Your task to perform on an android device: Is it going to rain this weekend? Image 0: 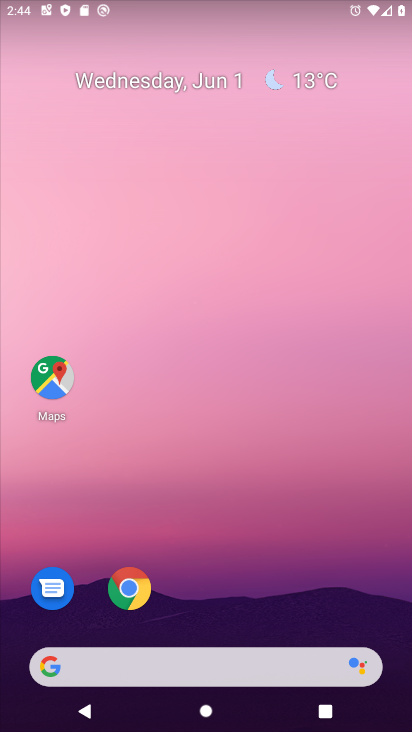
Step 0: click (275, 79)
Your task to perform on an android device: Is it going to rain this weekend? Image 1: 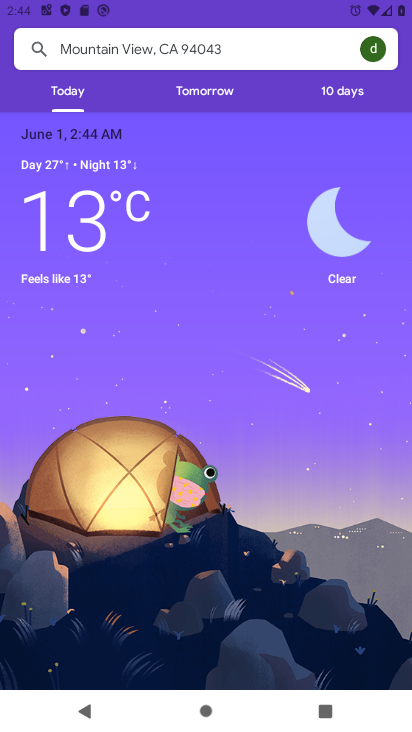
Step 1: click (321, 99)
Your task to perform on an android device: Is it going to rain this weekend? Image 2: 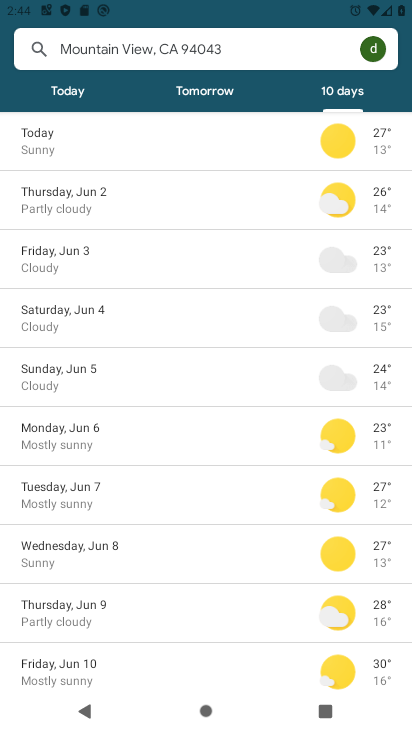
Step 2: task complete